Your task to perform on an android device: Open Yahoo.com Image 0: 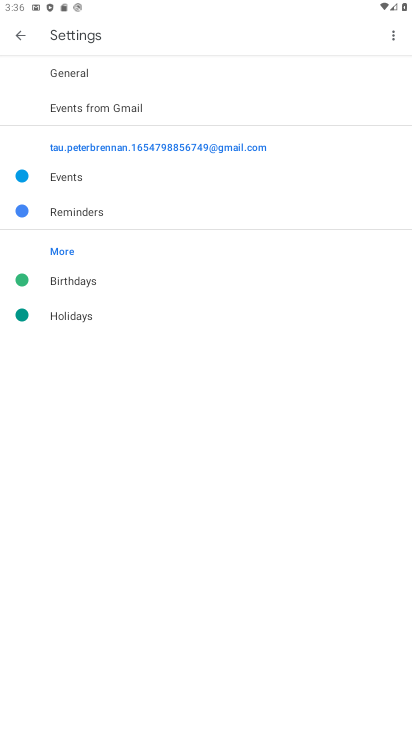
Step 0: press home button
Your task to perform on an android device: Open Yahoo.com Image 1: 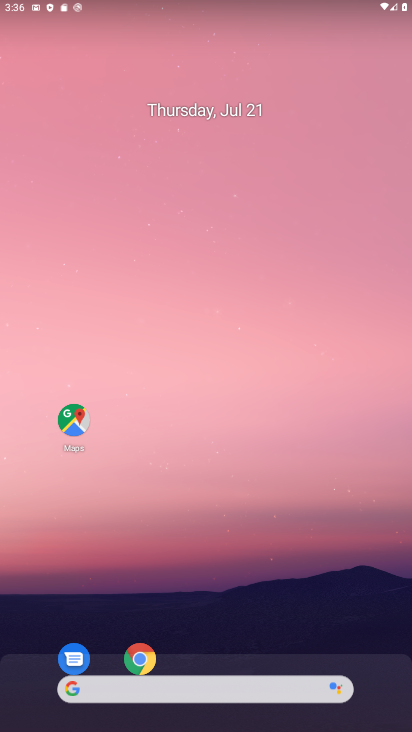
Step 1: click (144, 657)
Your task to perform on an android device: Open Yahoo.com Image 2: 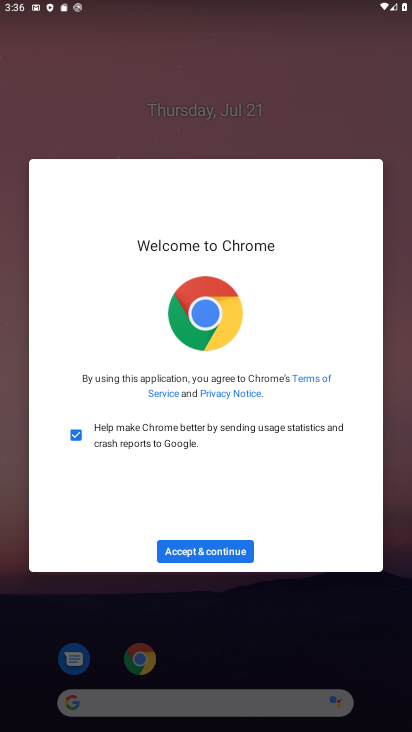
Step 2: click (212, 545)
Your task to perform on an android device: Open Yahoo.com Image 3: 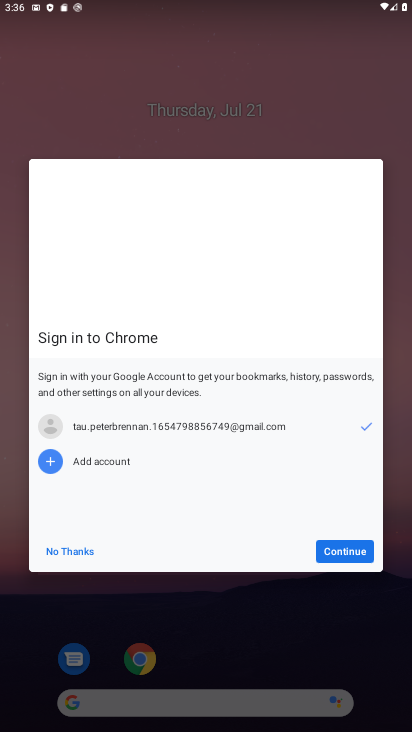
Step 3: click (336, 546)
Your task to perform on an android device: Open Yahoo.com Image 4: 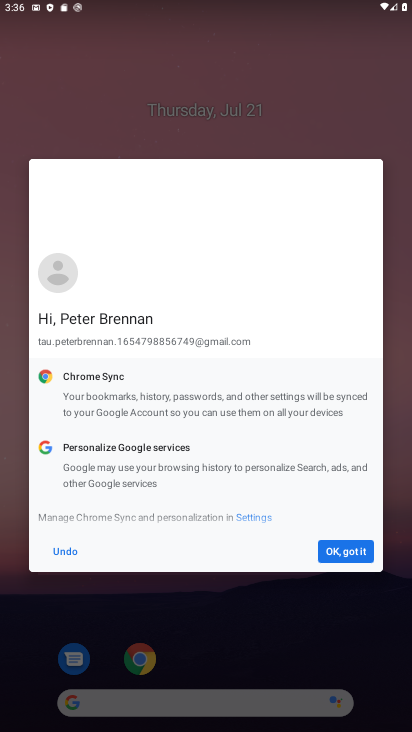
Step 4: click (336, 546)
Your task to perform on an android device: Open Yahoo.com Image 5: 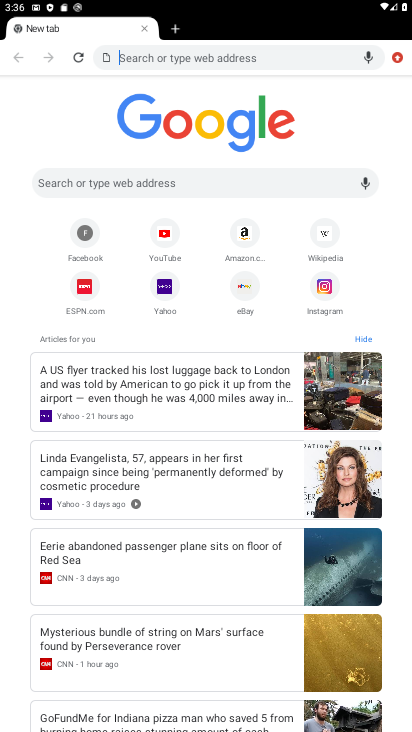
Step 5: click (161, 285)
Your task to perform on an android device: Open Yahoo.com Image 6: 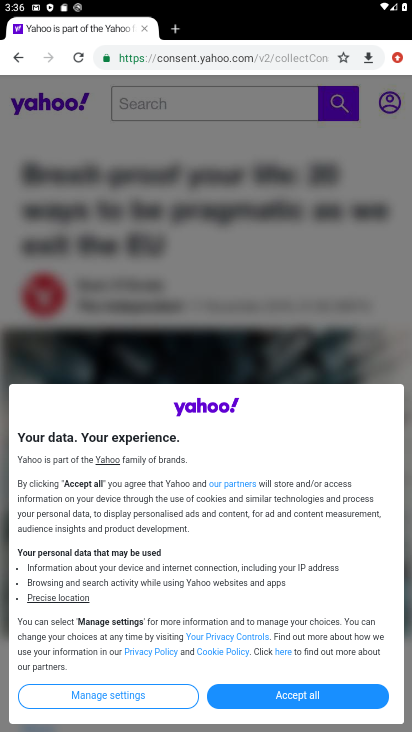
Step 6: click (298, 694)
Your task to perform on an android device: Open Yahoo.com Image 7: 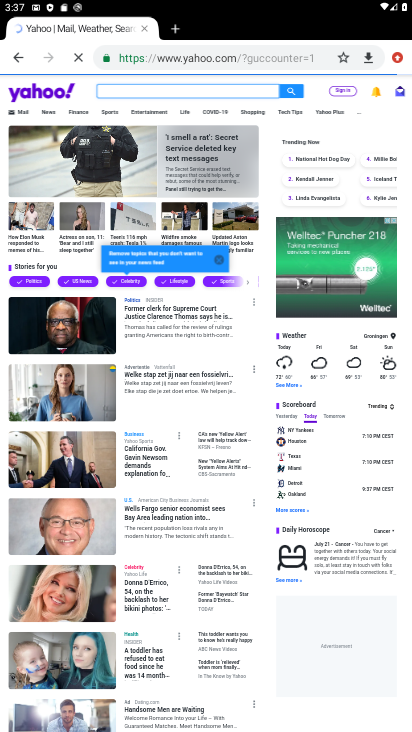
Step 7: task complete